Your task to perform on an android device: open app "Pandora - Music & Podcasts" (install if not already installed) Image 0: 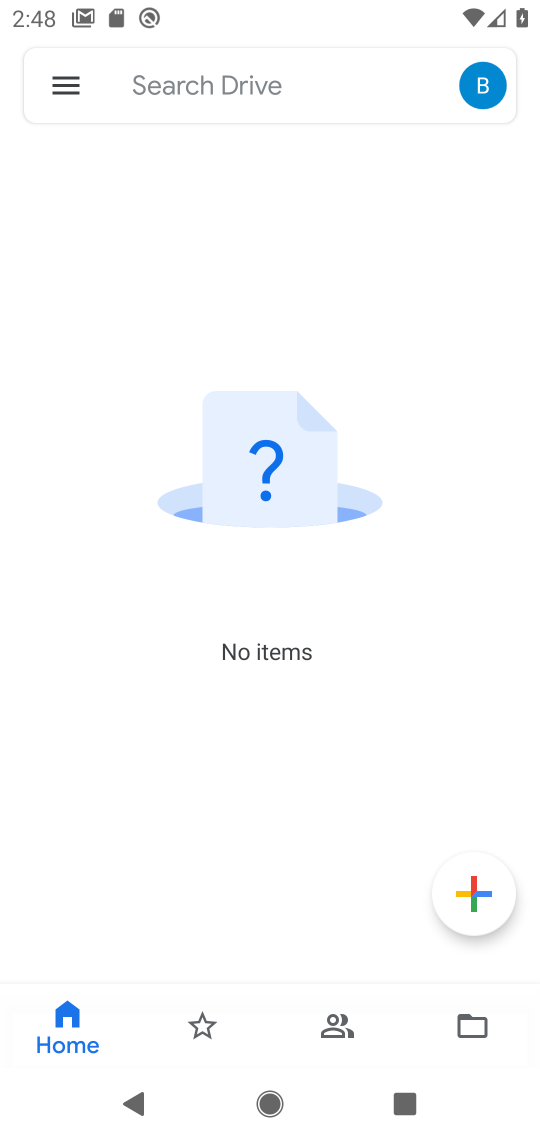
Step 0: press home button
Your task to perform on an android device: open app "Pandora - Music & Podcasts" (install if not already installed) Image 1: 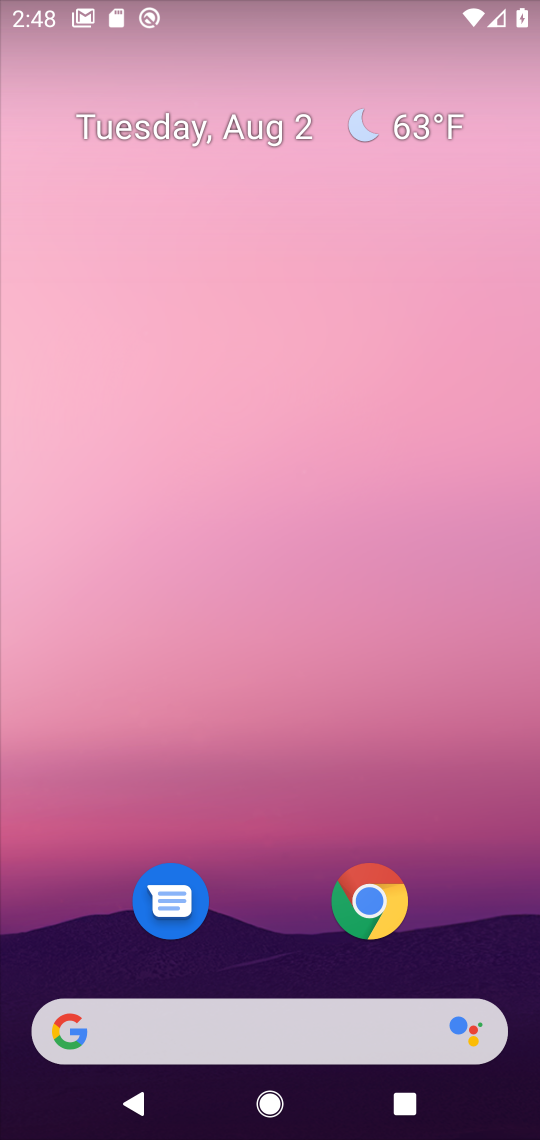
Step 1: drag from (315, 817) to (166, 84)
Your task to perform on an android device: open app "Pandora - Music & Podcasts" (install if not already installed) Image 2: 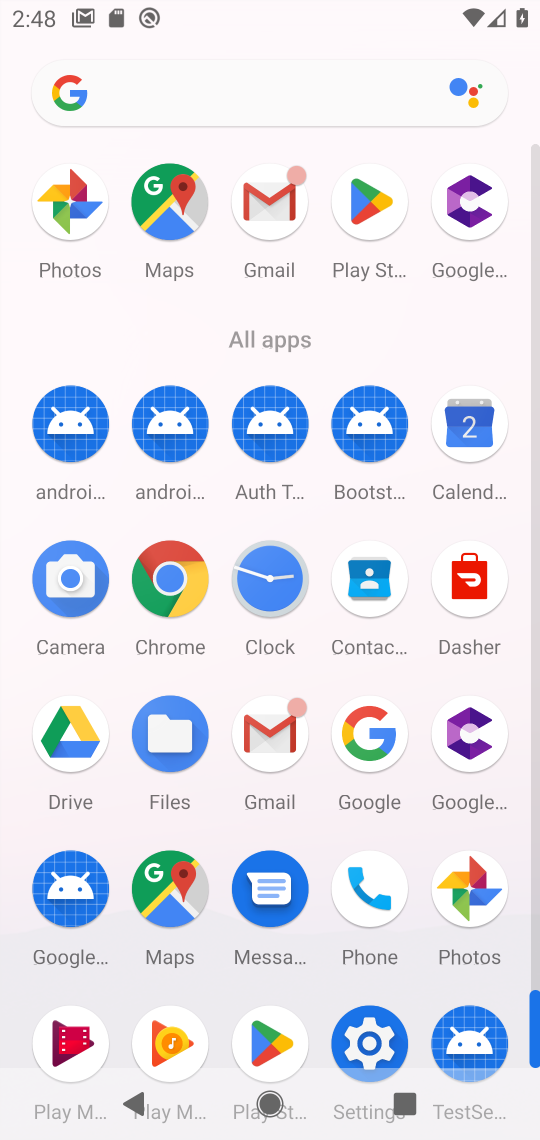
Step 2: click (274, 1005)
Your task to perform on an android device: open app "Pandora - Music & Podcasts" (install if not already installed) Image 3: 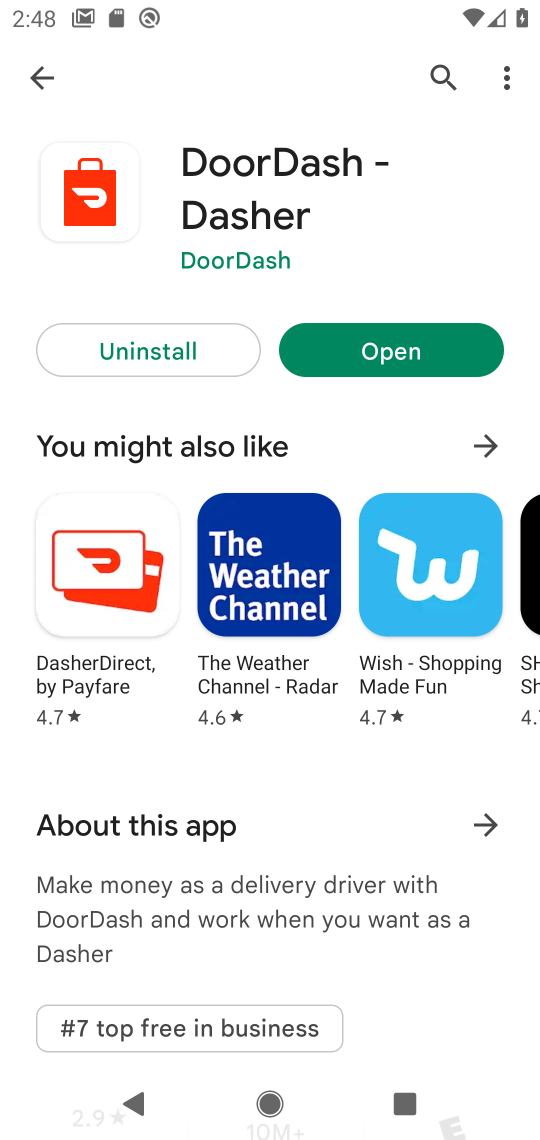
Step 3: click (429, 67)
Your task to perform on an android device: open app "Pandora - Music & Podcasts" (install if not already installed) Image 4: 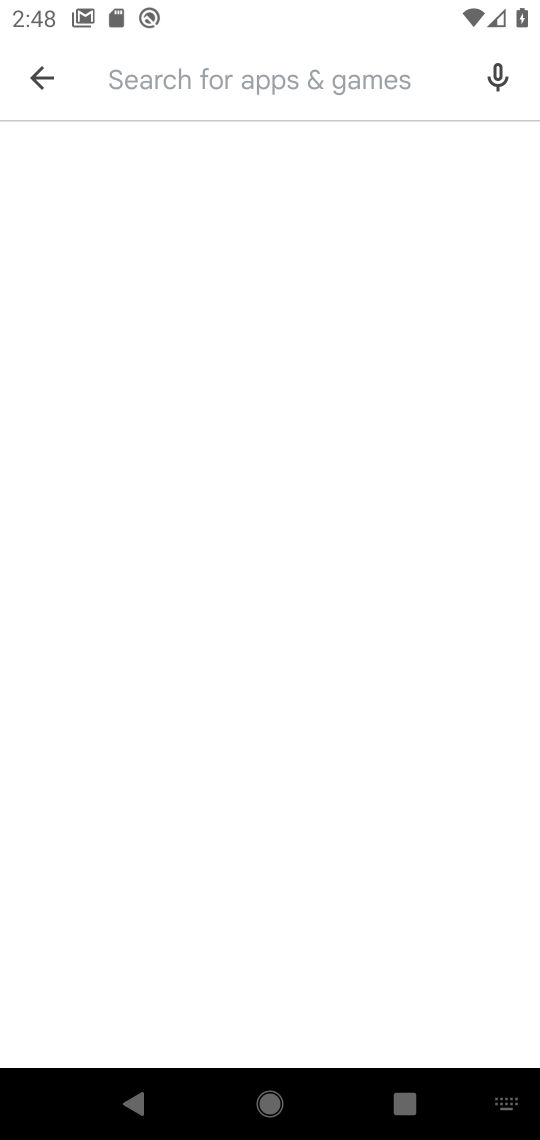
Step 4: type "pandora"
Your task to perform on an android device: open app "Pandora - Music & Podcasts" (install if not already installed) Image 5: 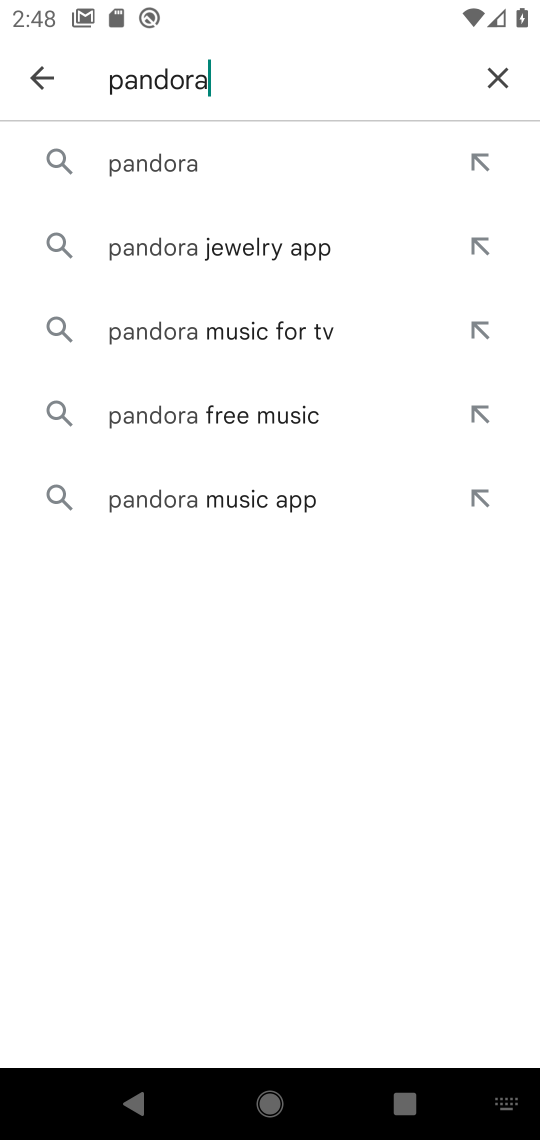
Step 5: click (223, 167)
Your task to perform on an android device: open app "Pandora - Music & Podcasts" (install if not already installed) Image 6: 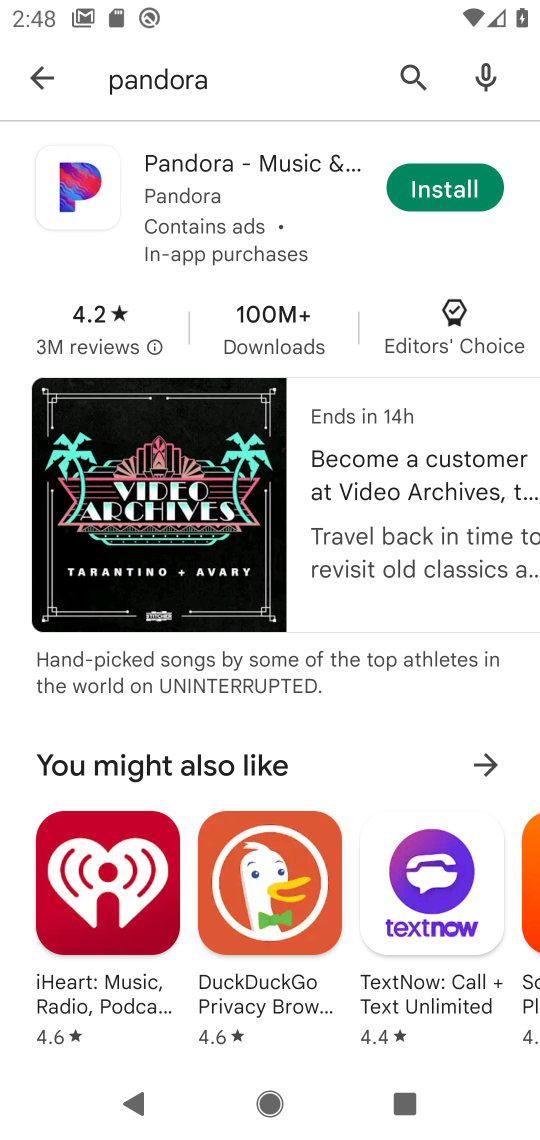
Step 6: click (455, 193)
Your task to perform on an android device: open app "Pandora - Music & Podcasts" (install if not already installed) Image 7: 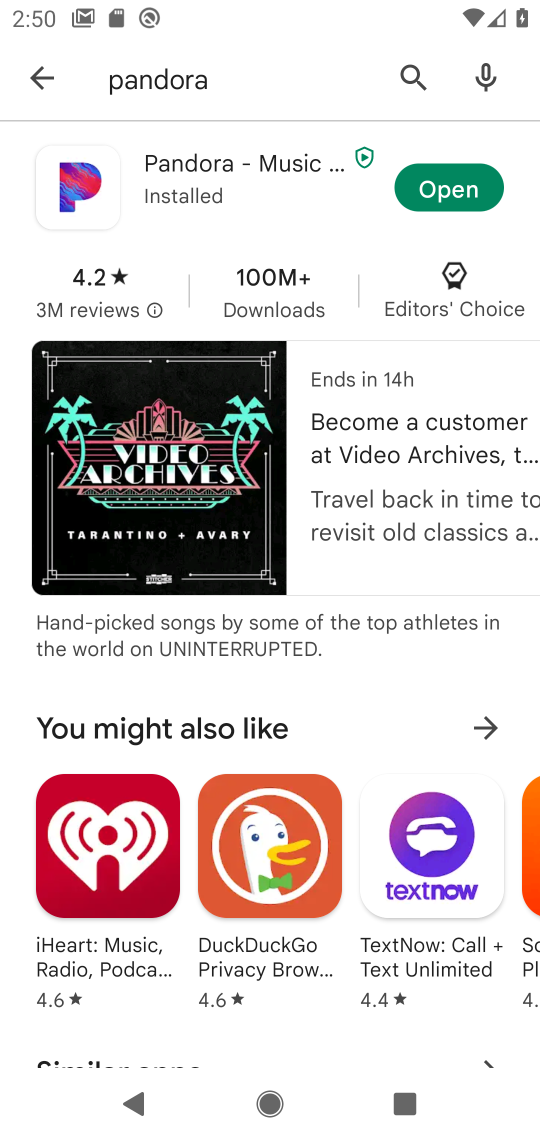
Step 7: click (457, 189)
Your task to perform on an android device: open app "Pandora - Music & Podcasts" (install if not already installed) Image 8: 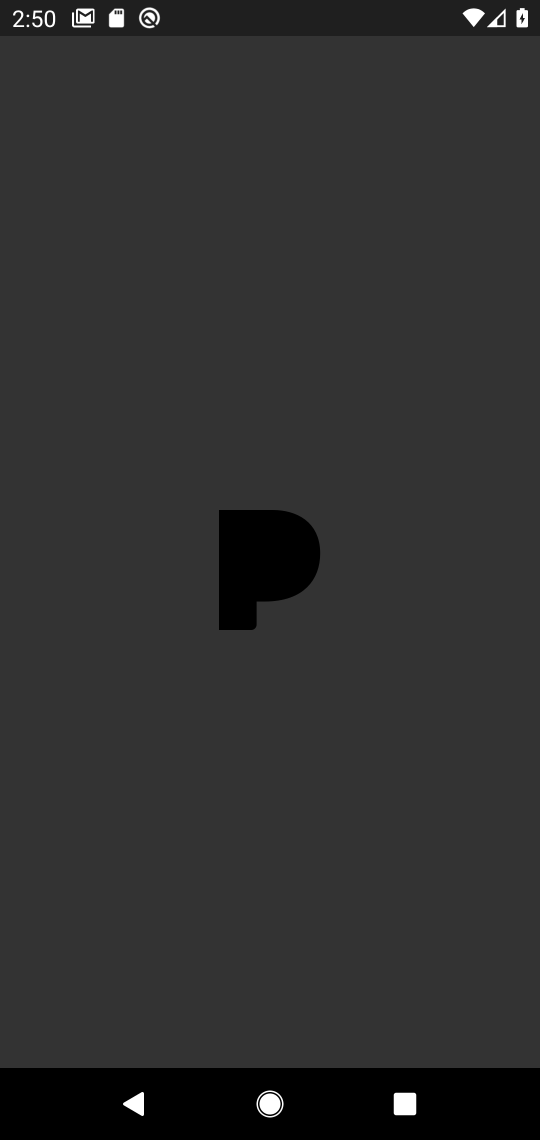
Step 8: task complete